Your task to perform on an android device: Play the last video I watched on Youtube Image 0: 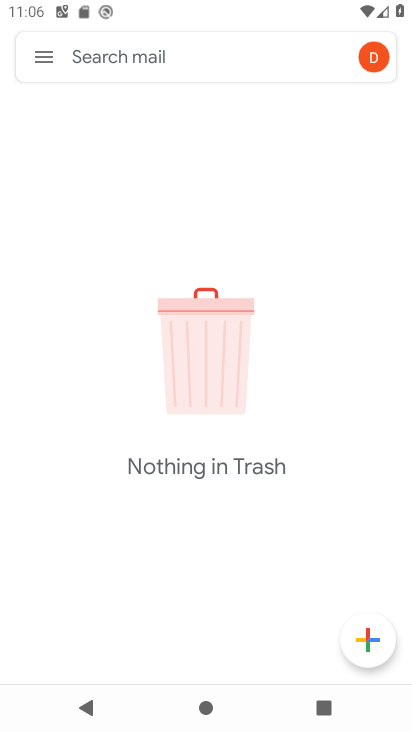
Step 0: press home button
Your task to perform on an android device: Play the last video I watched on Youtube Image 1: 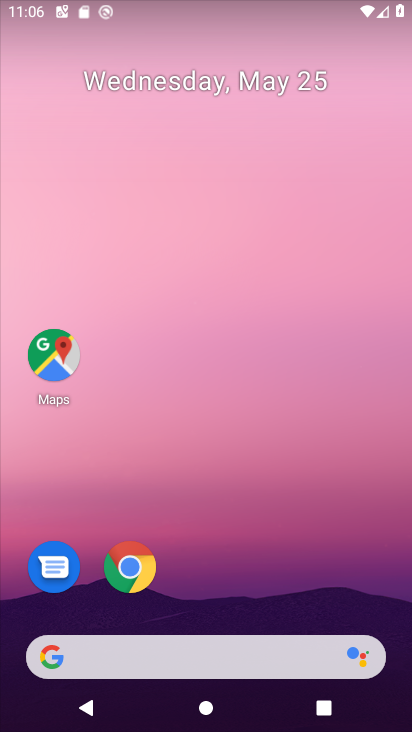
Step 1: drag from (271, 571) to (261, 94)
Your task to perform on an android device: Play the last video I watched on Youtube Image 2: 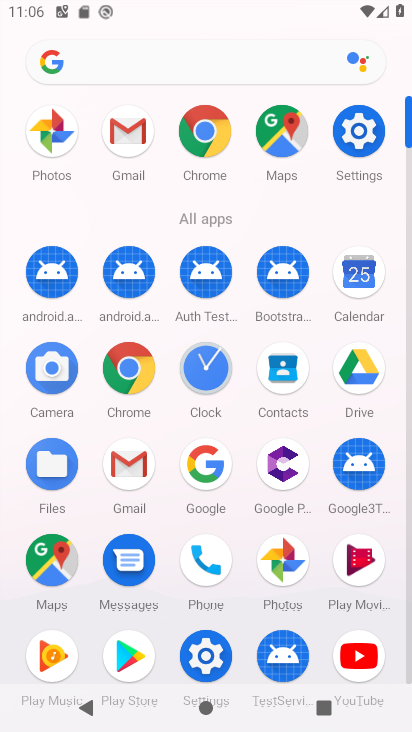
Step 2: click (355, 657)
Your task to perform on an android device: Play the last video I watched on Youtube Image 3: 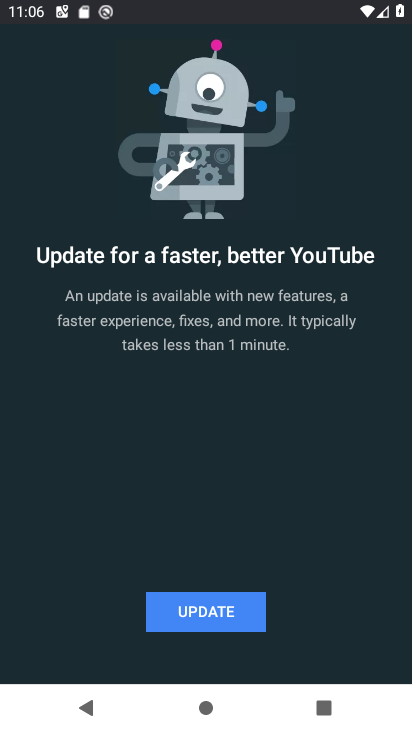
Step 3: click (250, 614)
Your task to perform on an android device: Play the last video I watched on Youtube Image 4: 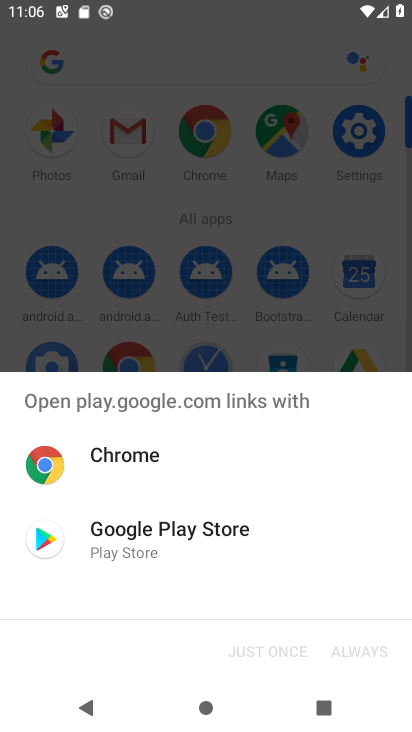
Step 4: click (170, 566)
Your task to perform on an android device: Play the last video I watched on Youtube Image 5: 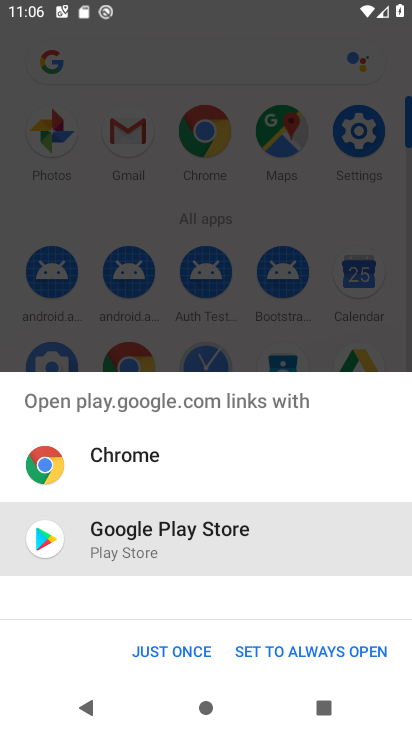
Step 5: click (187, 653)
Your task to perform on an android device: Play the last video I watched on Youtube Image 6: 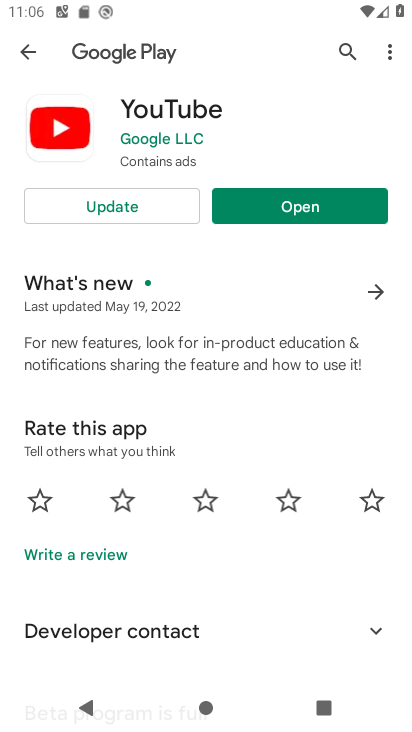
Step 6: click (154, 203)
Your task to perform on an android device: Play the last video I watched on Youtube Image 7: 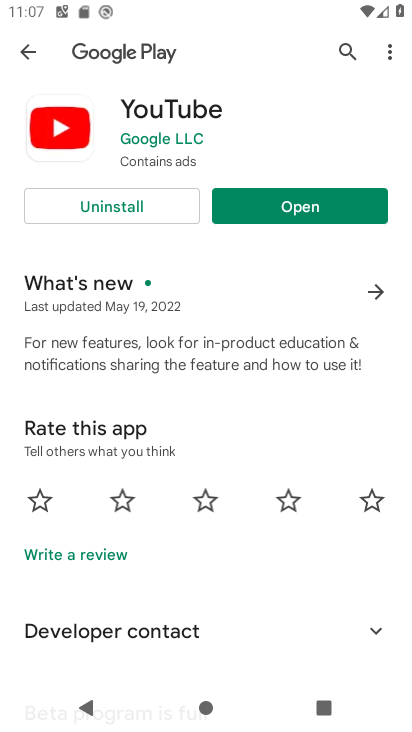
Step 7: click (282, 205)
Your task to perform on an android device: Play the last video I watched on Youtube Image 8: 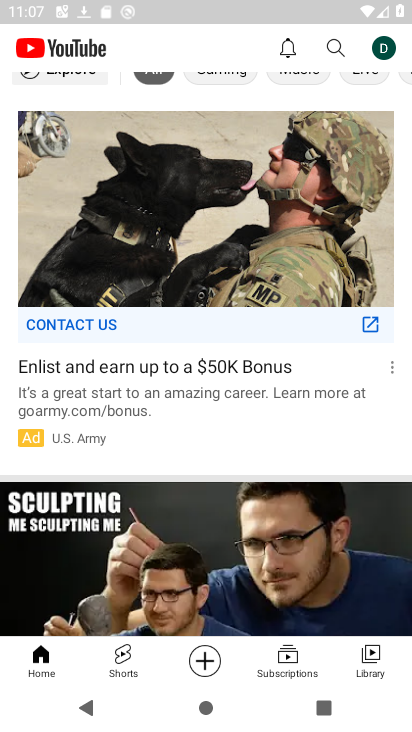
Step 8: click (373, 652)
Your task to perform on an android device: Play the last video I watched on Youtube Image 9: 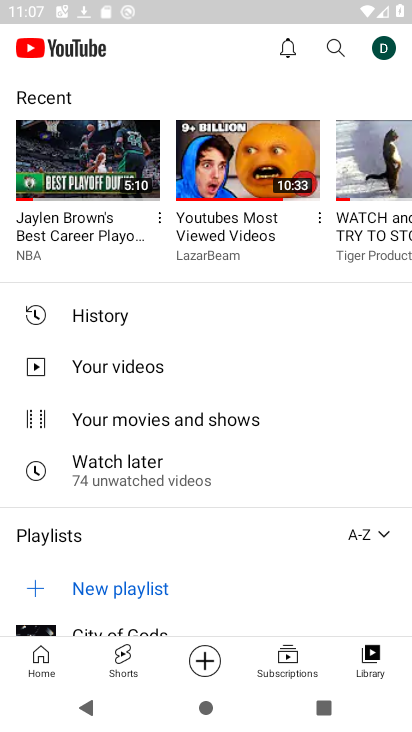
Step 9: click (94, 163)
Your task to perform on an android device: Play the last video I watched on Youtube Image 10: 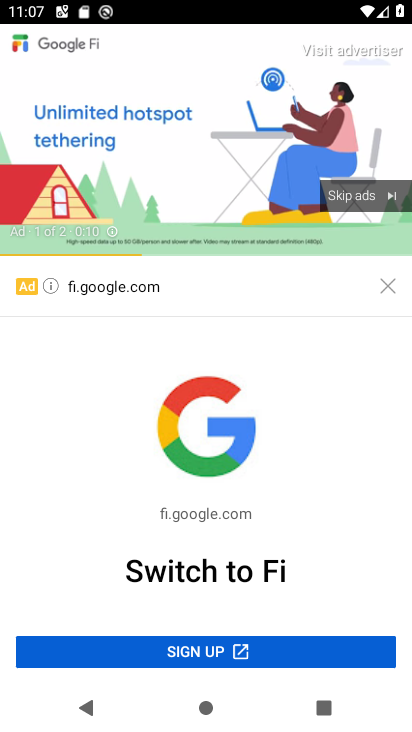
Step 10: click (374, 203)
Your task to perform on an android device: Play the last video I watched on Youtube Image 11: 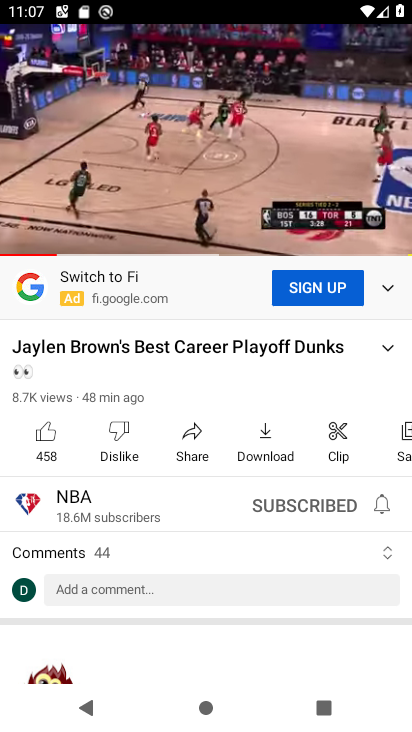
Step 11: task complete